Your task to perform on an android device: turn off data saver in the chrome app Image 0: 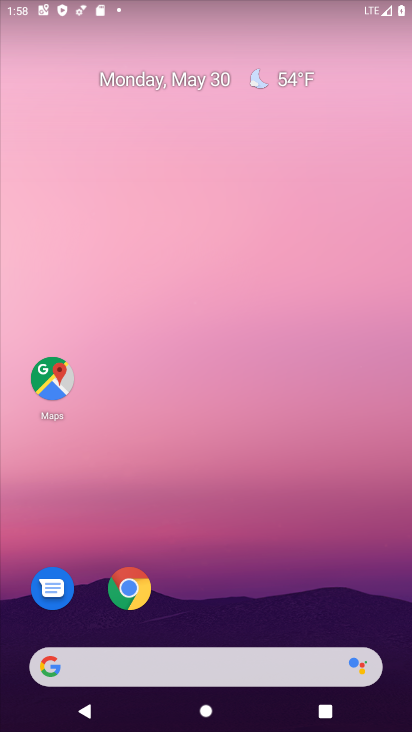
Step 0: drag from (205, 591) to (240, 11)
Your task to perform on an android device: turn off data saver in the chrome app Image 1: 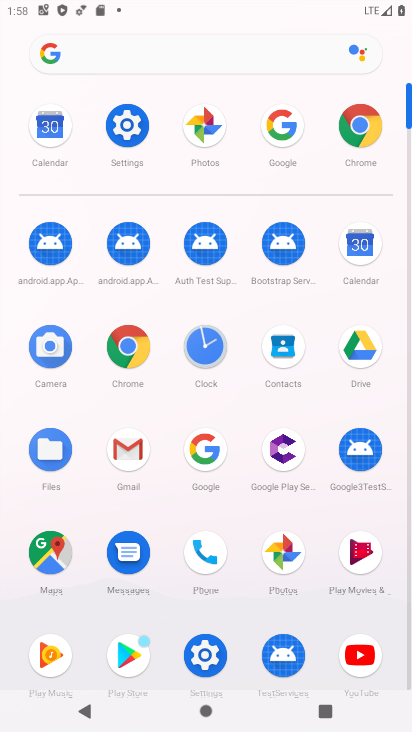
Step 1: click (365, 123)
Your task to perform on an android device: turn off data saver in the chrome app Image 2: 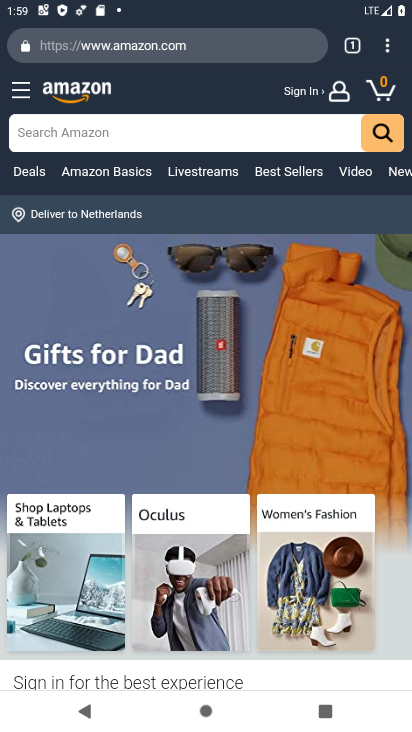
Step 2: click (382, 43)
Your task to perform on an android device: turn off data saver in the chrome app Image 3: 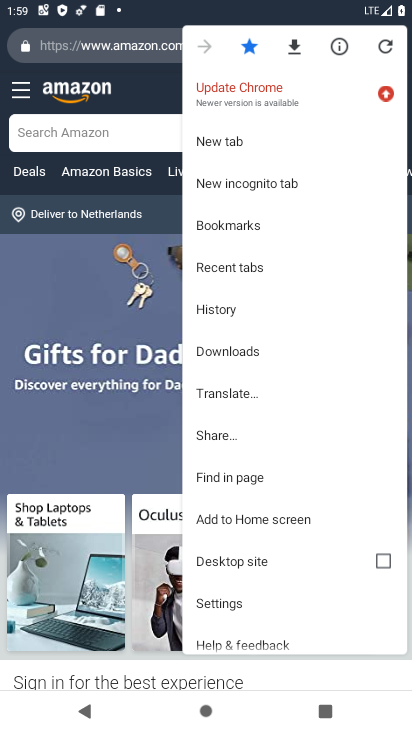
Step 3: click (247, 604)
Your task to perform on an android device: turn off data saver in the chrome app Image 4: 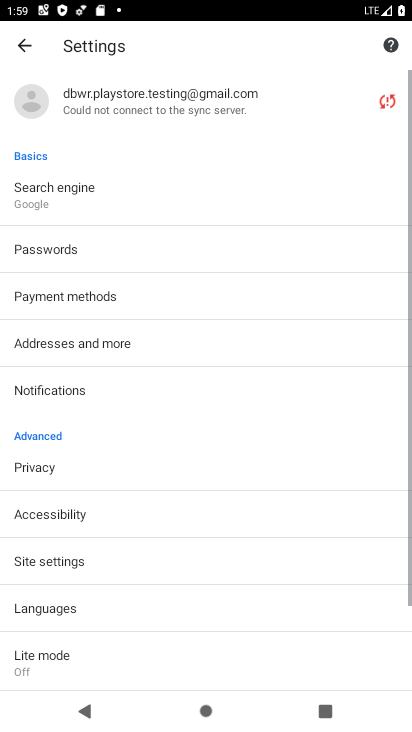
Step 4: drag from (206, 621) to (183, 279)
Your task to perform on an android device: turn off data saver in the chrome app Image 5: 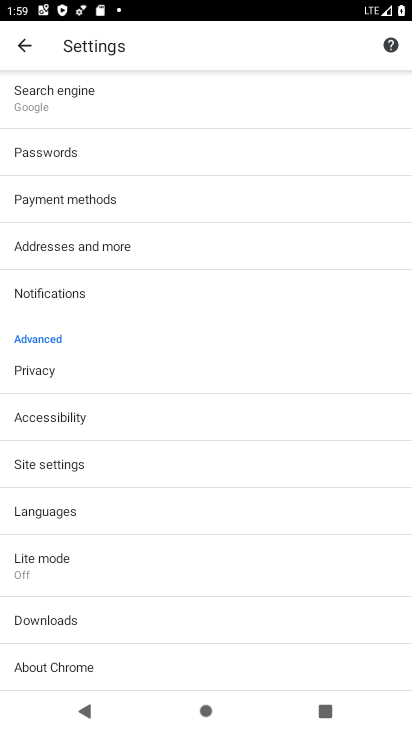
Step 5: click (52, 565)
Your task to perform on an android device: turn off data saver in the chrome app Image 6: 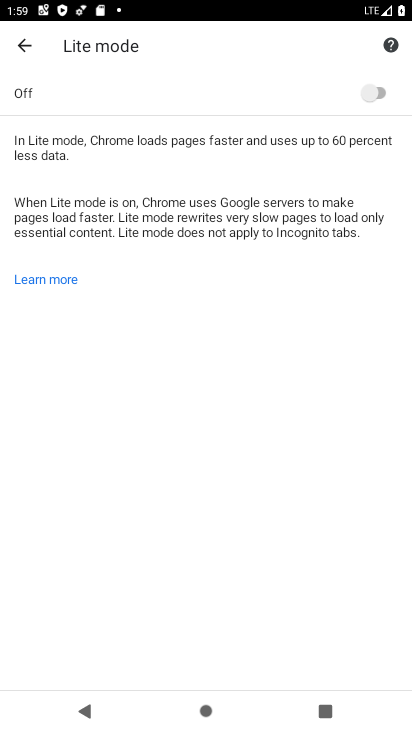
Step 6: task complete